Your task to perform on an android device: change the clock display to show seconds Image 0: 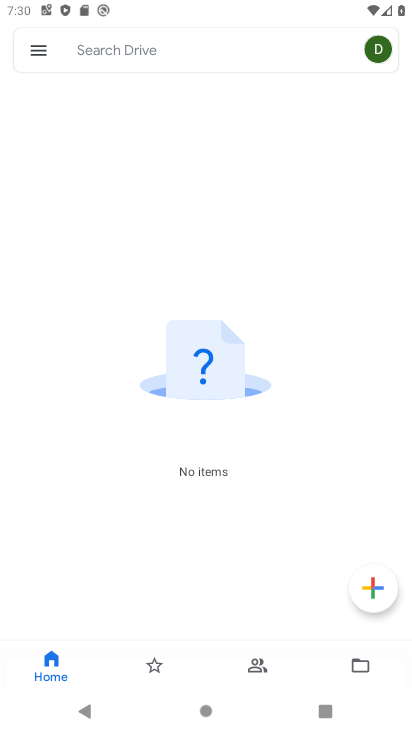
Step 0: press home button
Your task to perform on an android device: change the clock display to show seconds Image 1: 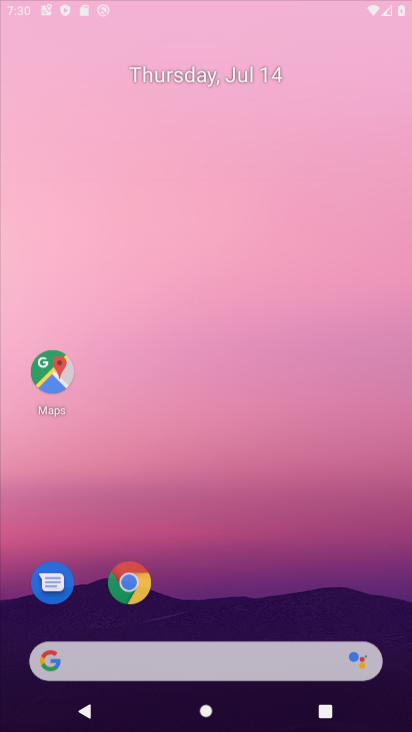
Step 1: drag from (382, 690) to (236, 0)
Your task to perform on an android device: change the clock display to show seconds Image 2: 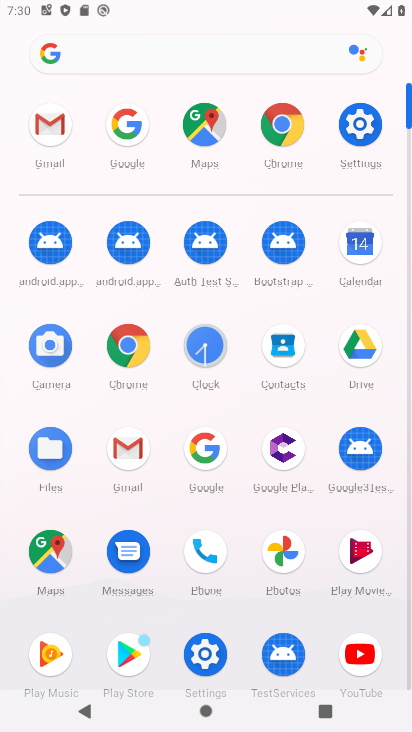
Step 2: click (216, 345)
Your task to perform on an android device: change the clock display to show seconds Image 3: 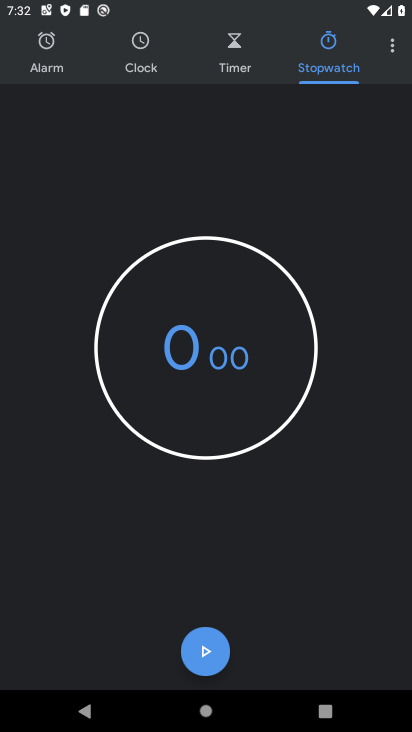
Step 3: click (389, 49)
Your task to perform on an android device: change the clock display to show seconds Image 4: 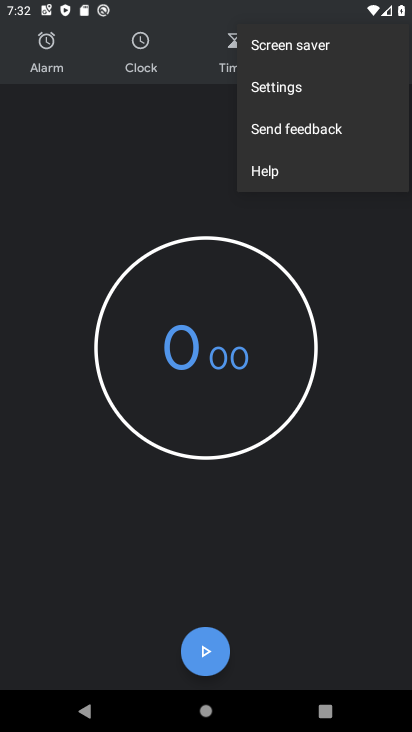
Step 4: click (291, 91)
Your task to perform on an android device: change the clock display to show seconds Image 5: 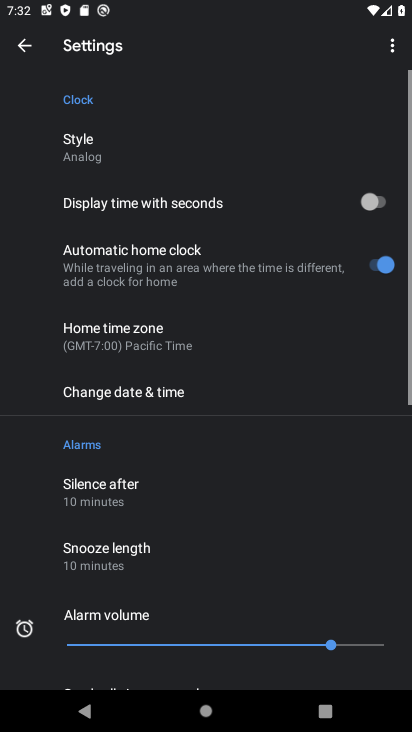
Step 5: click (285, 205)
Your task to perform on an android device: change the clock display to show seconds Image 6: 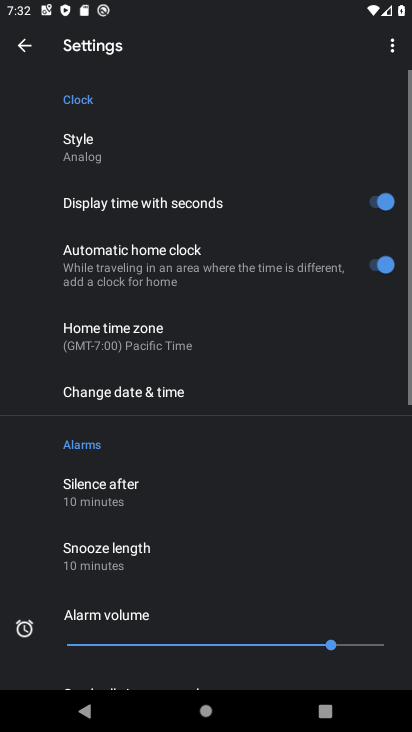
Step 6: task complete